Your task to perform on an android device: Go to ESPN.com Image 0: 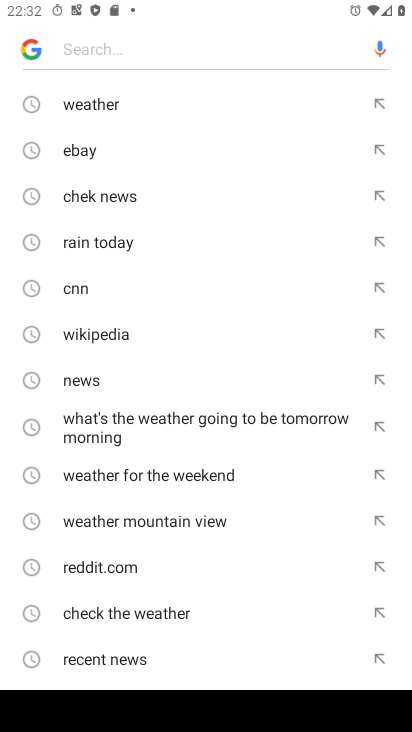
Step 0: press back button
Your task to perform on an android device: Go to ESPN.com Image 1: 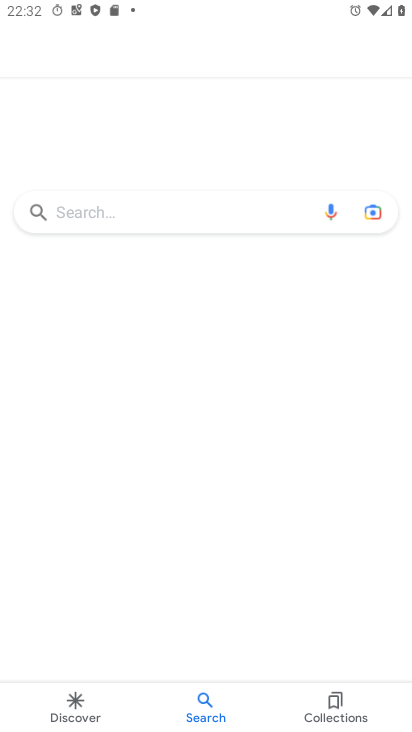
Step 1: press back button
Your task to perform on an android device: Go to ESPN.com Image 2: 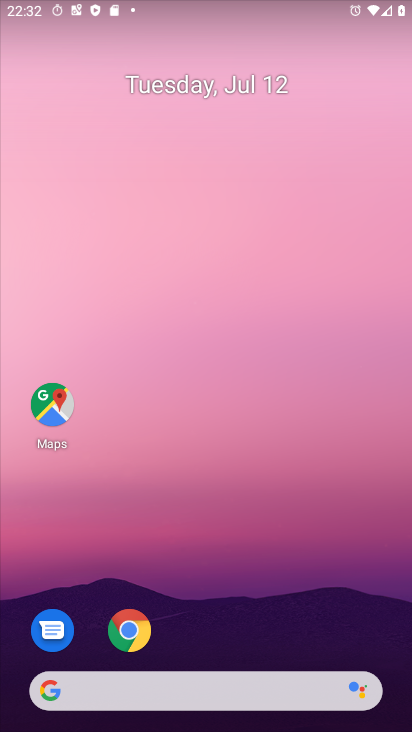
Step 2: click (137, 627)
Your task to perform on an android device: Go to ESPN.com Image 3: 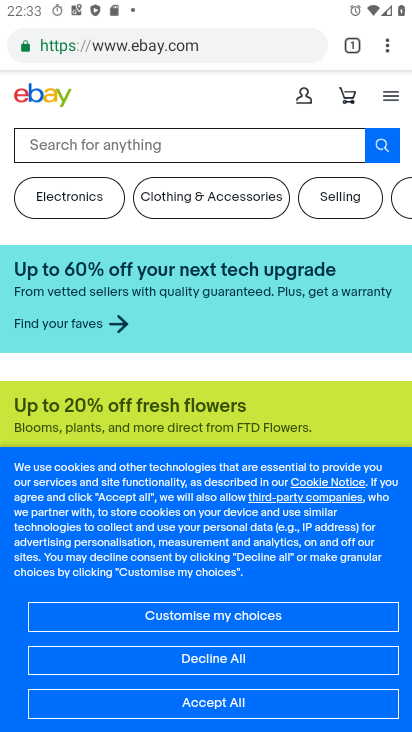
Step 3: click (350, 45)
Your task to perform on an android device: Go to ESPN.com Image 4: 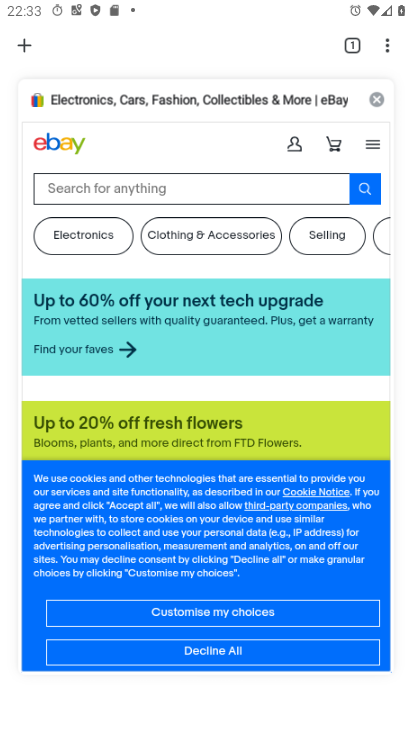
Step 4: click (25, 47)
Your task to perform on an android device: Go to ESPN.com Image 5: 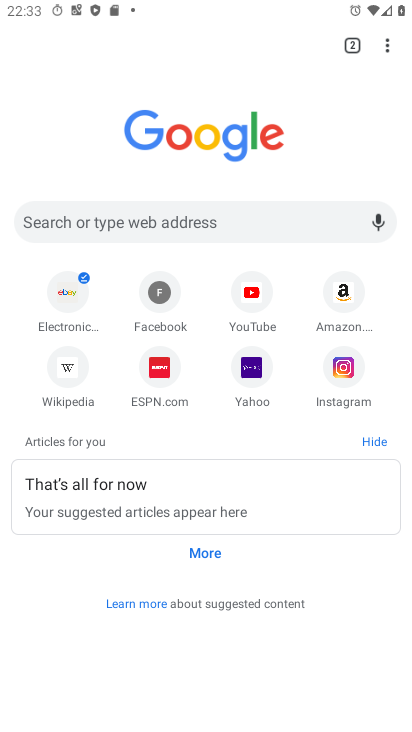
Step 5: click (163, 378)
Your task to perform on an android device: Go to ESPN.com Image 6: 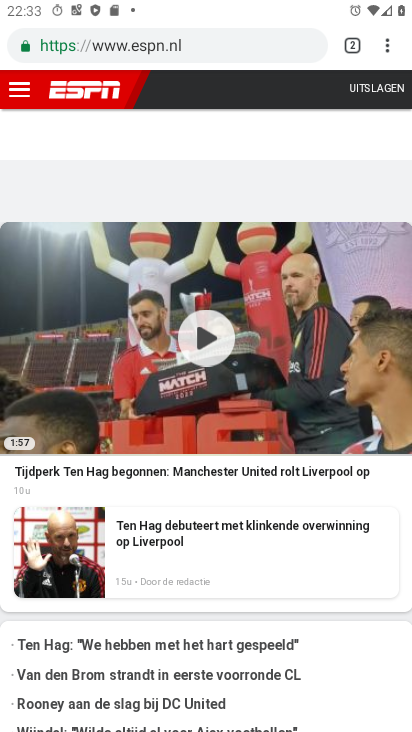
Step 6: task complete